Your task to perform on an android device: turn pop-ups on in chrome Image 0: 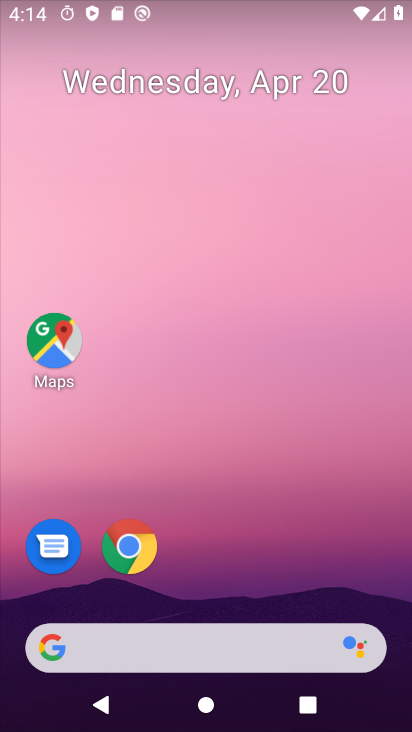
Step 0: click (138, 553)
Your task to perform on an android device: turn pop-ups on in chrome Image 1: 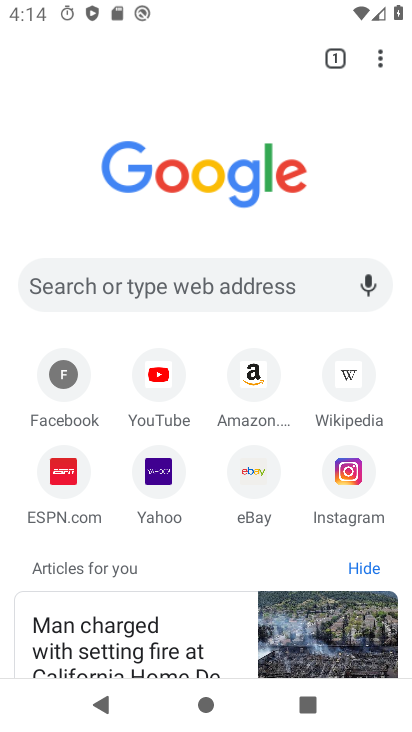
Step 1: click (381, 55)
Your task to perform on an android device: turn pop-ups on in chrome Image 2: 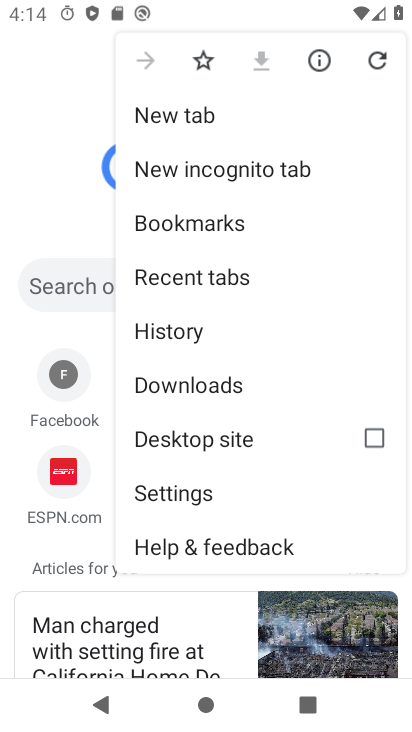
Step 2: click (211, 488)
Your task to perform on an android device: turn pop-ups on in chrome Image 3: 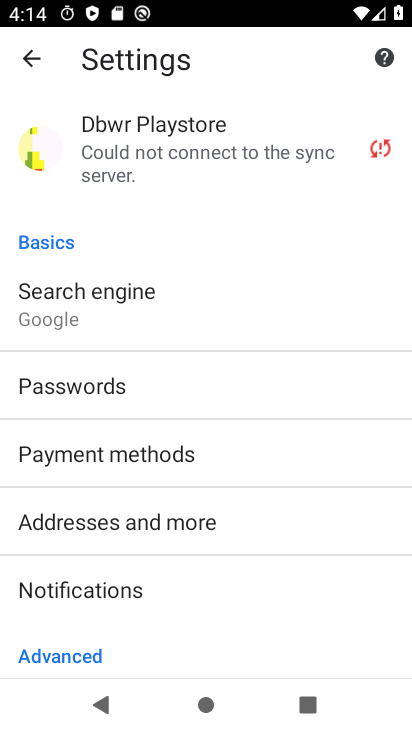
Step 3: drag from (273, 570) to (251, 241)
Your task to perform on an android device: turn pop-ups on in chrome Image 4: 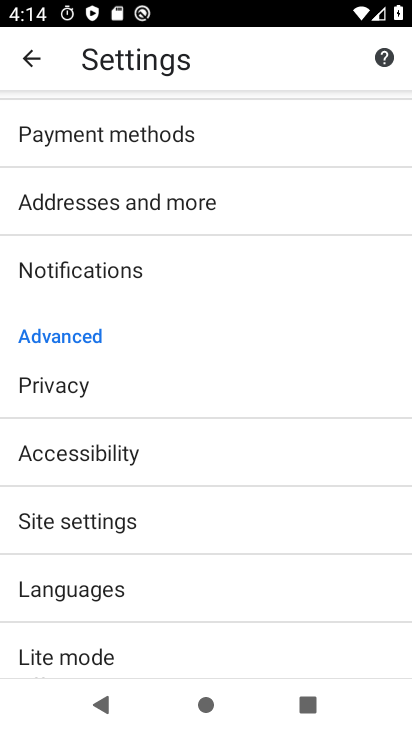
Step 4: click (147, 519)
Your task to perform on an android device: turn pop-ups on in chrome Image 5: 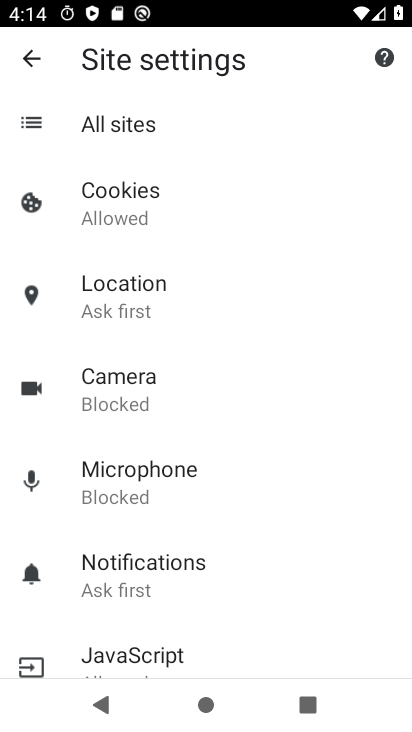
Step 5: drag from (239, 535) to (236, 197)
Your task to perform on an android device: turn pop-ups on in chrome Image 6: 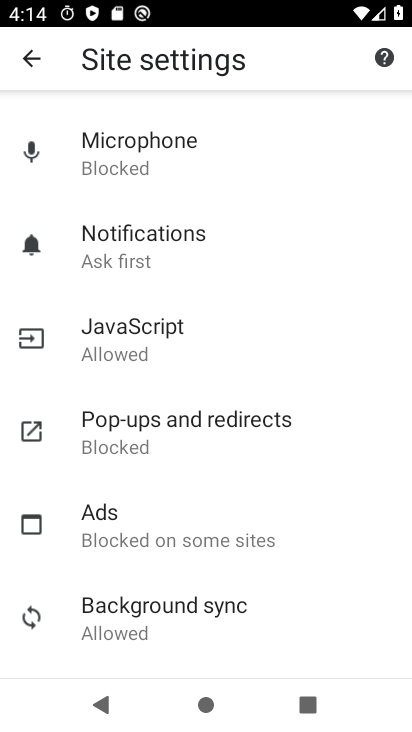
Step 6: click (245, 432)
Your task to perform on an android device: turn pop-ups on in chrome Image 7: 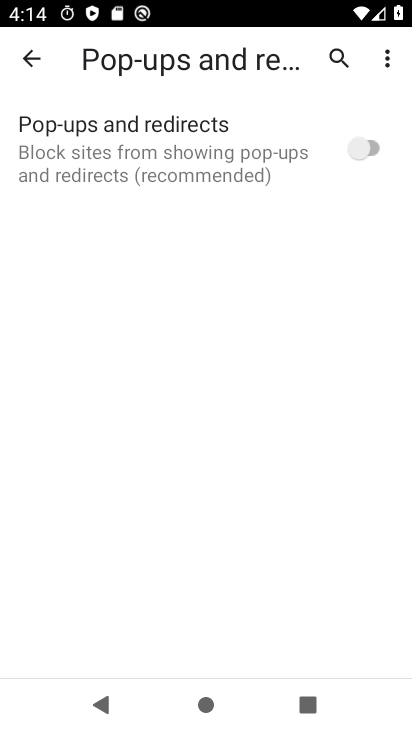
Step 7: click (367, 146)
Your task to perform on an android device: turn pop-ups on in chrome Image 8: 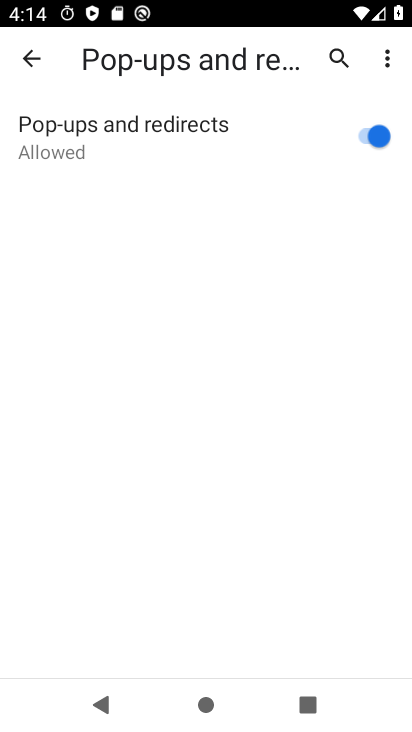
Step 8: task complete